Your task to perform on an android device: Open my contact list Image 0: 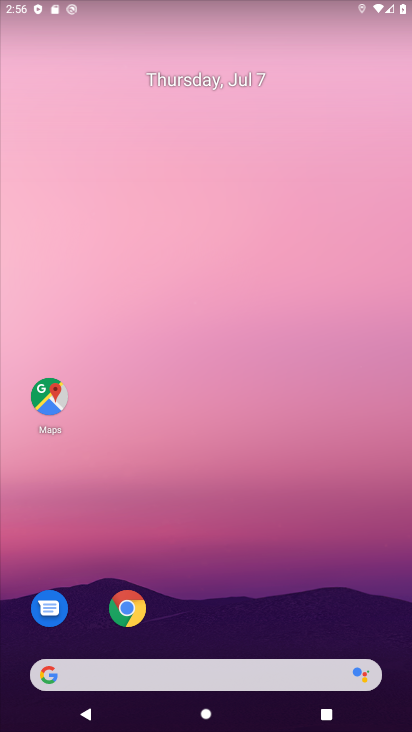
Step 0: drag from (214, 644) to (208, 95)
Your task to perform on an android device: Open my contact list Image 1: 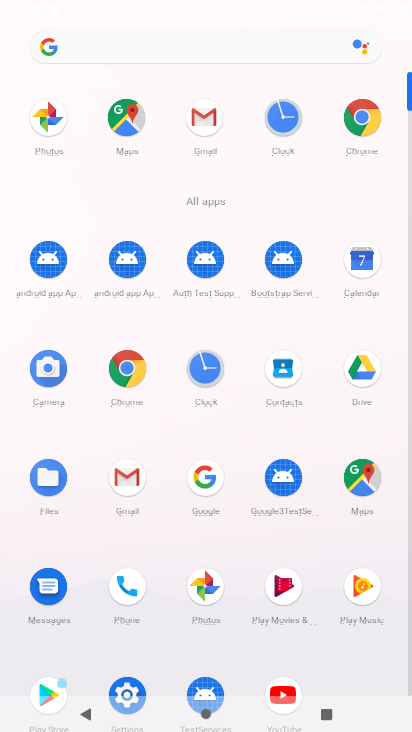
Step 1: click (279, 367)
Your task to perform on an android device: Open my contact list Image 2: 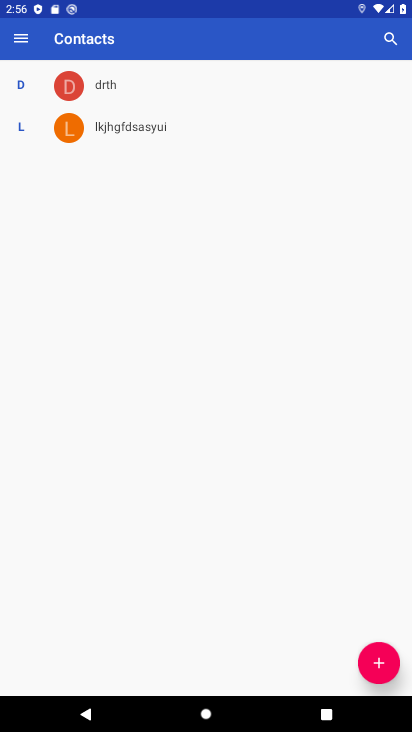
Step 2: click (382, 659)
Your task to perform on an android device: Open my contact list Image 3: 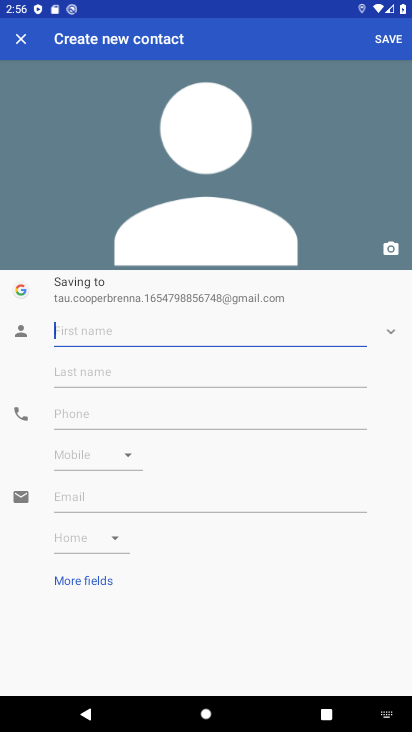
Step 3: click (22, 40)
Your task to perform on an android device: Open my contact list Image 4: 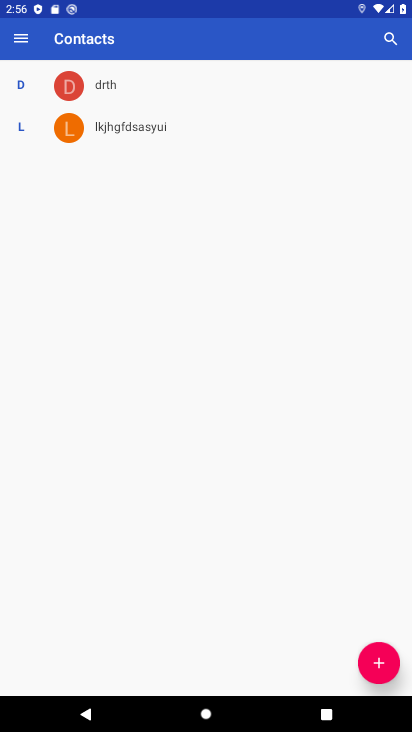
Step 4: task complete